Your task to perform on an android device: set the stopwatch Image 0: 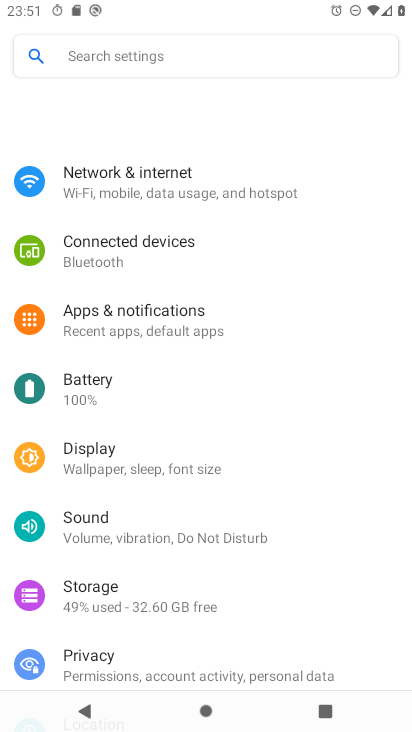
Step 0: drag from (132, 670) to (265, 284)
Your task to perform on an android device: set the stopwatch Image 1: 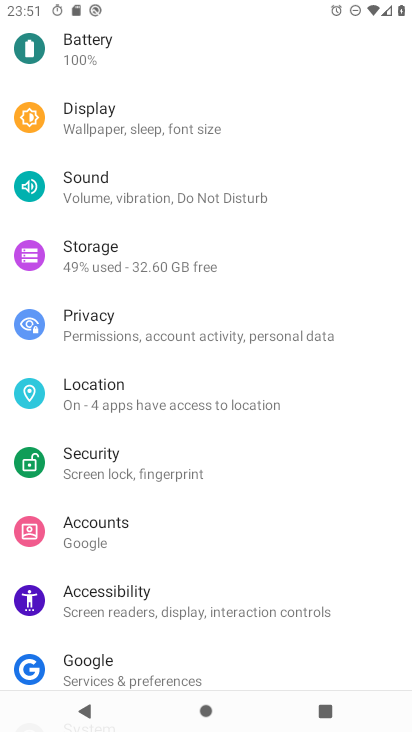
Step 1: press home button
Your task to perform on an android device: set the stopwatch Image 2: 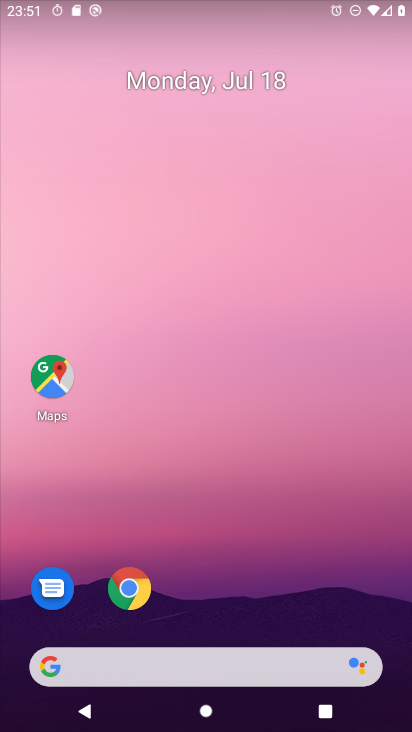
Step 2: drag from (205, 666) to (324, 99)
Your task to perform on an android device: set the stopwatch Image 3: 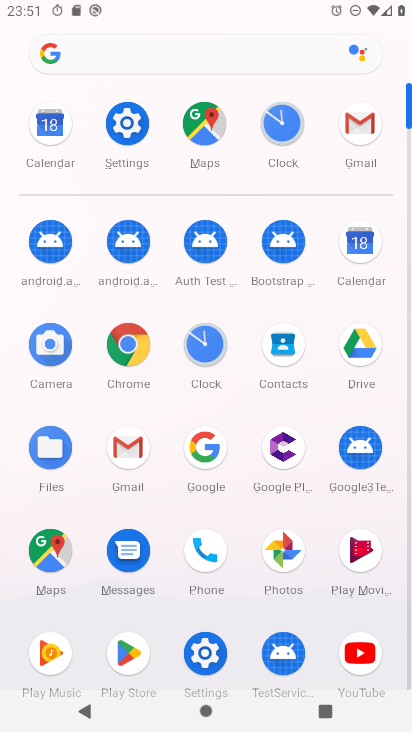
Step 3: click (279, 118)
Your task to perform on an android device: set the stopwatch Image 4: 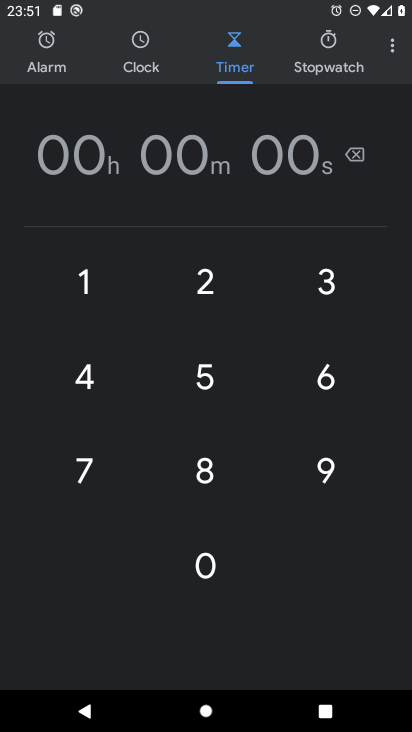
Step 4: click (330, 70)
Your task to perform on an android device: set the stopwatch Image 5: 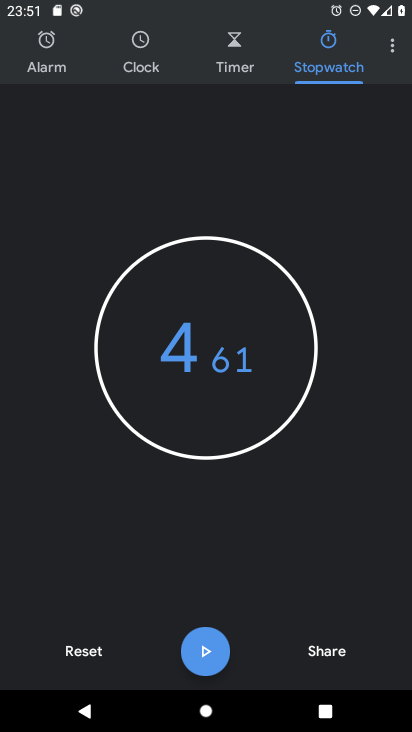
Step 5: click (77, 657)
Your task to perform on an android device: set the stopwatch Image 6: 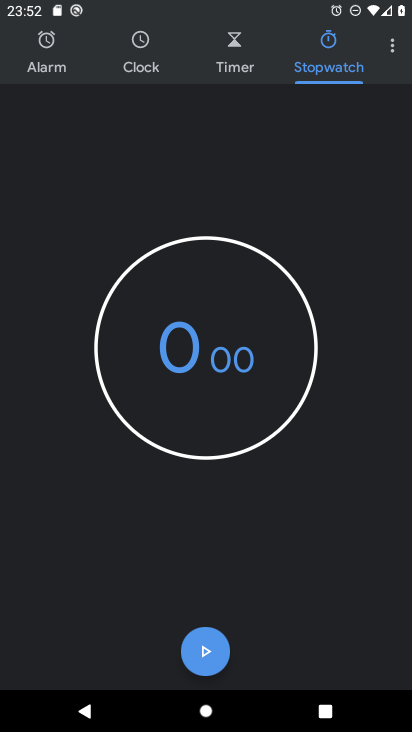
Step 6: click (221, 373)
Your task to perform on an android device: set the stopwatch Image 7: 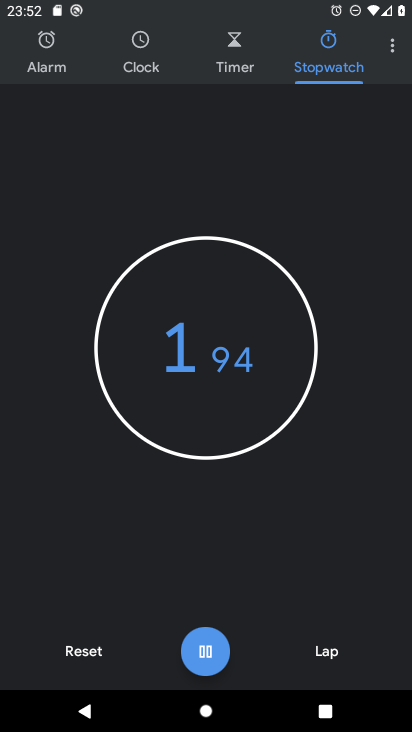
Step 7: click (222, 369)
Your task to perform on an android device: set the stopwatch Image 8: 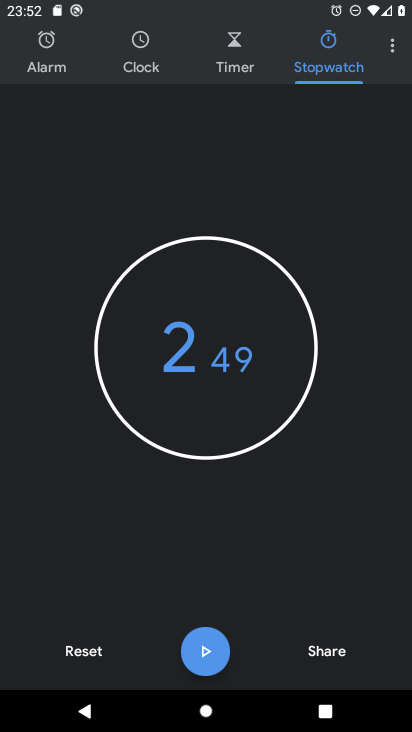
Step 8: click (204, 647)
Your task to perform on an android device: set the stopwatch Image 9: 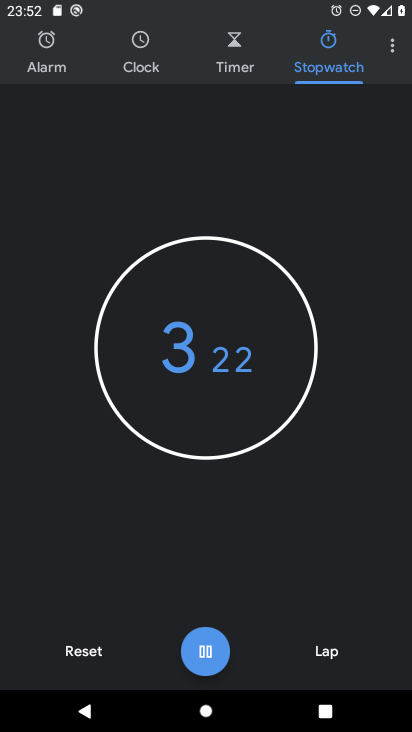
Step 9: click (211, 654)
Your task to perform on an android device: set the stopwatch Image 10: 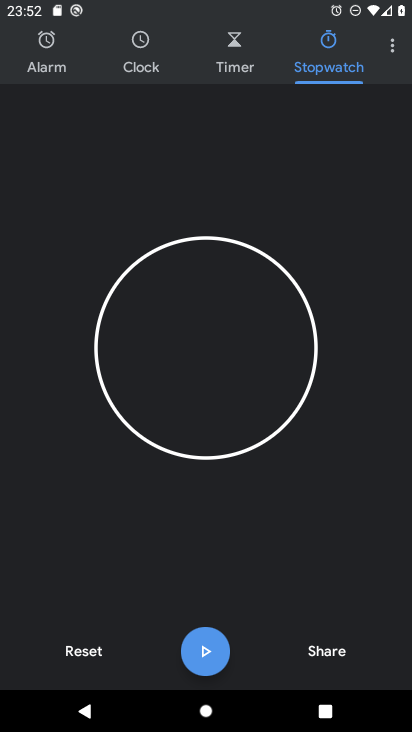
Step 10: task complete